Your task to perform on an android device: turn off notifications settings in the gmail app Image 0: 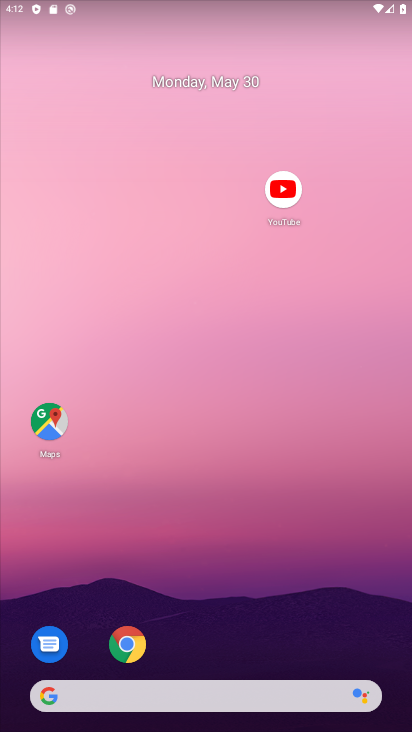
Step 0: drag from (308, 32) to (237, 15)
Your task to perform on an android device: turn off notifications settings in the gmail app Image 1: 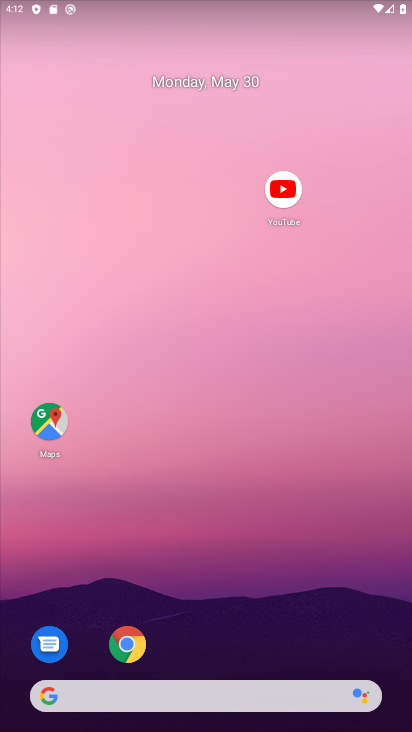
Step 1: drag from (190, 671) to (331, 250)
Your task to perform on an android device: turn off notifications settings in the gmail app Image 2: 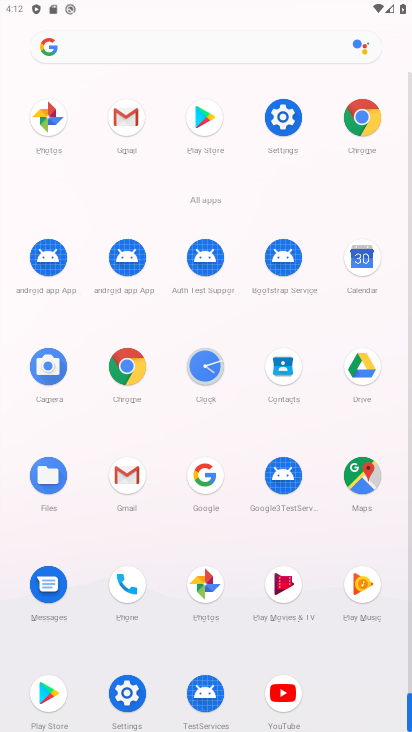
Step 2: click (122, 103)
Your task to perform on an android device: turn off notifications settings in the gmail app Image 3: 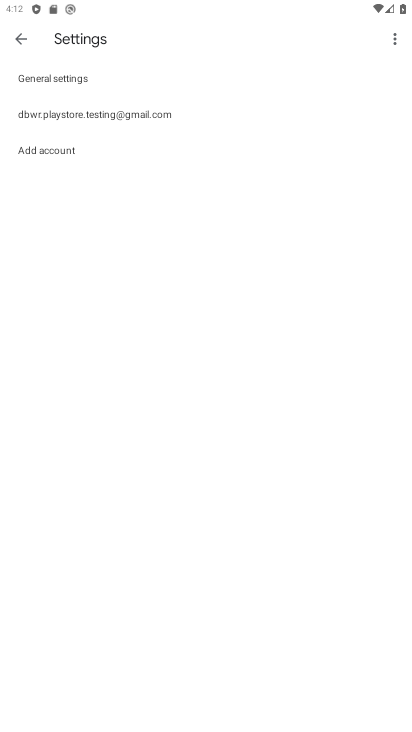
Step 3: click (67, 104)
Your task to perform on an android device: turn off notifications settings in the gmail app Image 4: 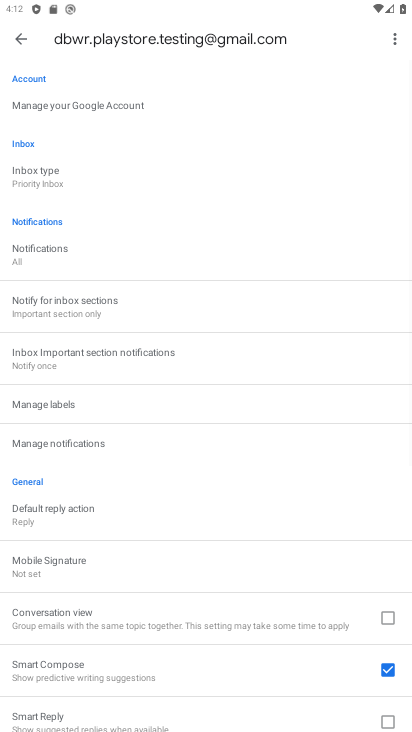
Step 4: click (46, 244)
Your task to perform on an android device: turn off notifications settings in the gmail app Image 5: 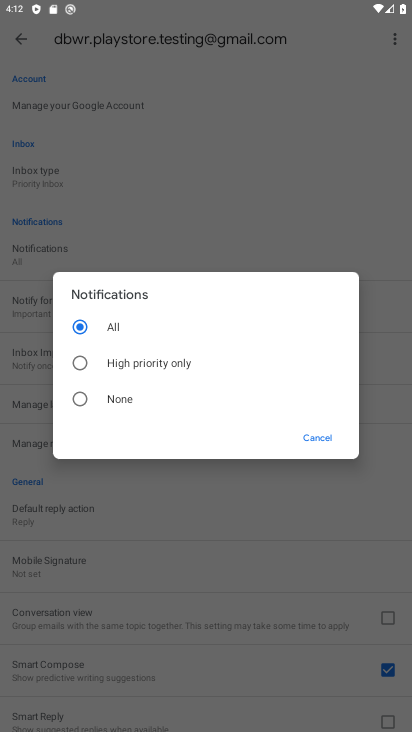
Step 5: click (168, 401)
Your task to perform on an android device: turn off notifications settings in the gmail app Image 6: 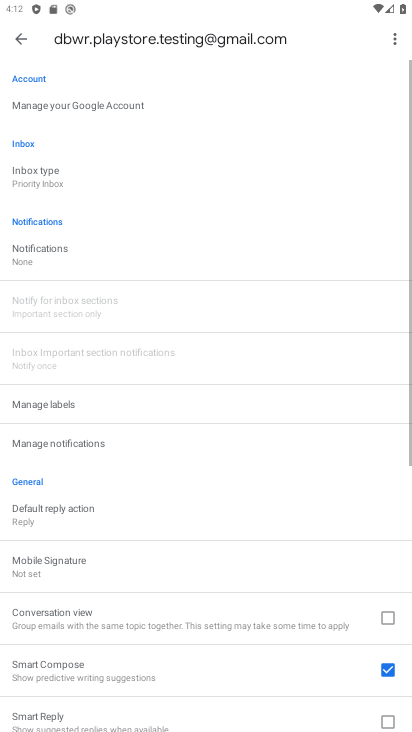
Step 6: task complete